Your task to perform on an android device: Open Youtube and go to "Your channel" Image 0: 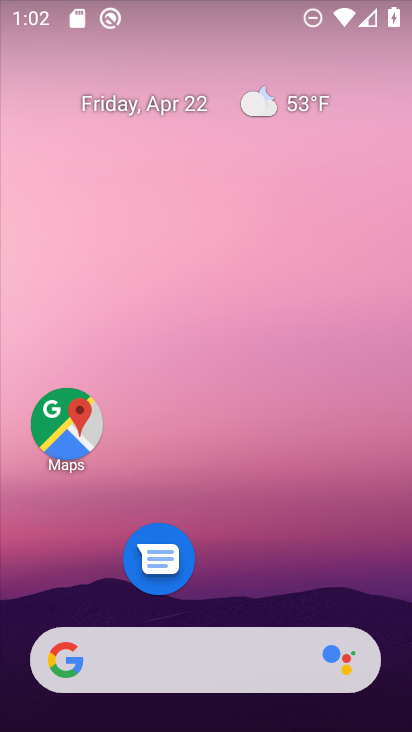
Step 0: drag from (247, 721) to (245, 240)
Your task to perform on an android device: Open Youtube and go to "Your channel" Image 1: 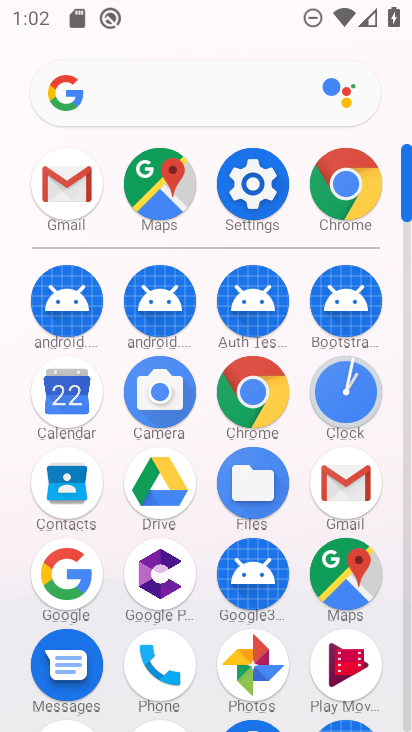
Step 1: drag from (199, 652) to (180, 282)
Your task to perform on an android device: Open Youtube and go to "Your channel" Image 2: 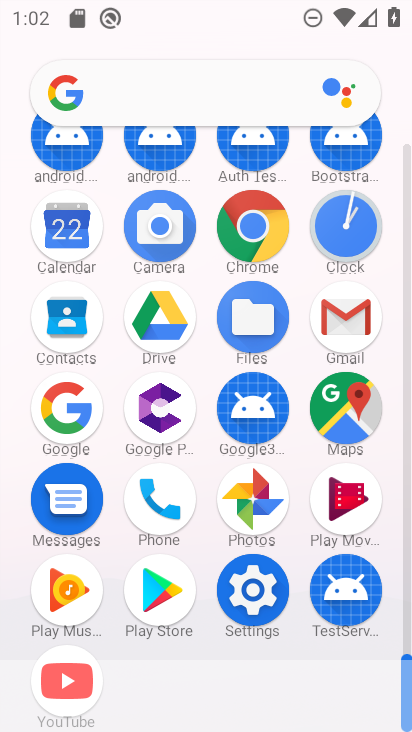
Step 2: click (60, 675)
Your task to perform on an android device: Open Youtube and go to "Your channel" Image 3: 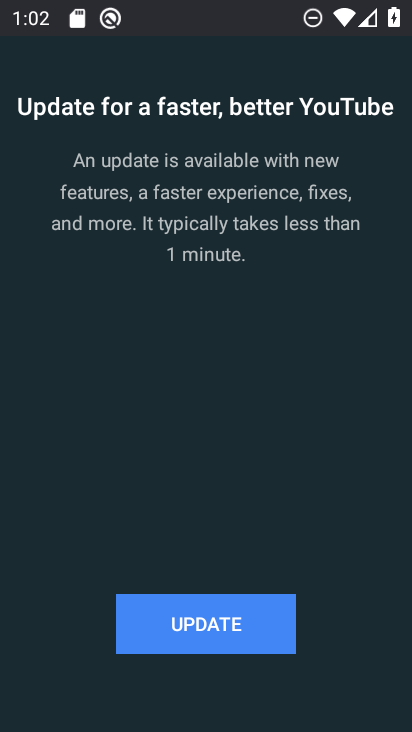
Step 3: click (215, 626)
Your task to perform on an android device: Open Youtube and go to "Your channel" Image 4: 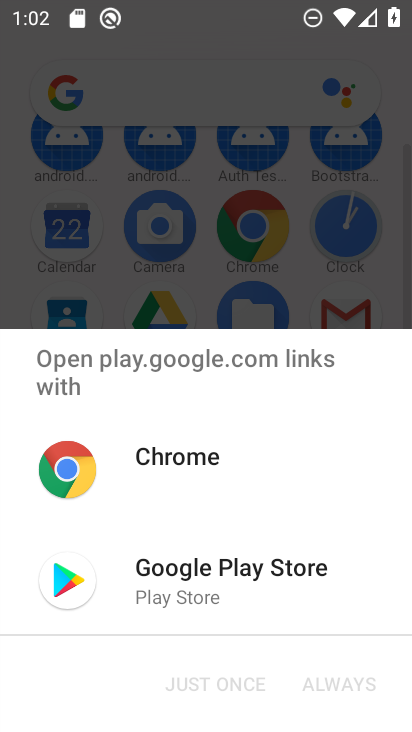
Step 4: click (180, 578)
Your task to perform on an android device: Open Youtube and go to "Your channel" Image 5: 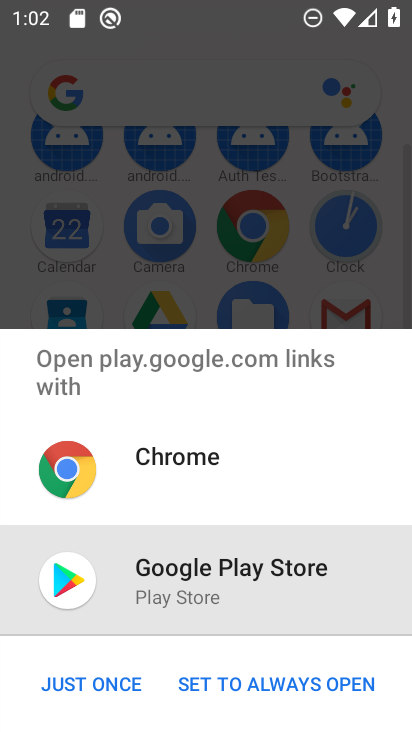
Step 5: click (77, 682)
Your task to perform on an android device: Open Youtube and go to "Your channel" Image 6: 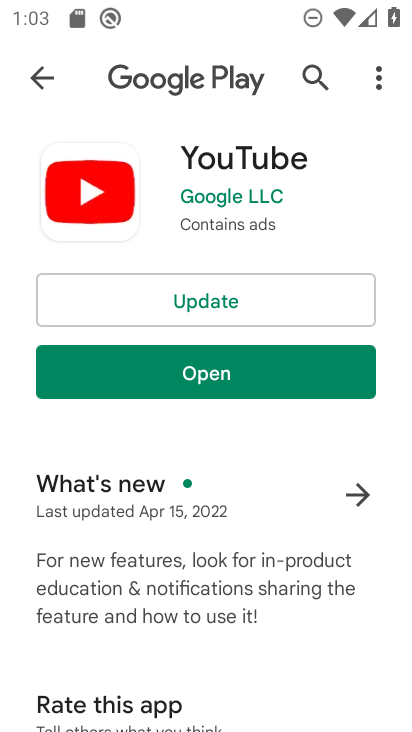
Step 6: click (208, 300)
Your task to perform on an android device: Open Youtube and go to "Your channel" Image 7: 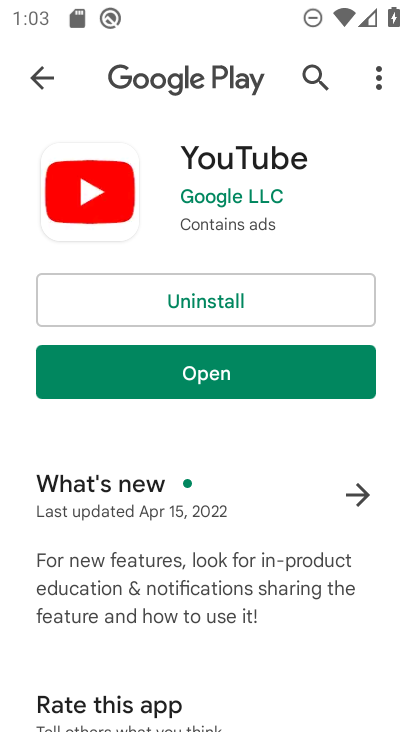
Step 7: click (200, 374)
Your task to perform on an android device: Open Youtube and go to "Your channel" Image 8: 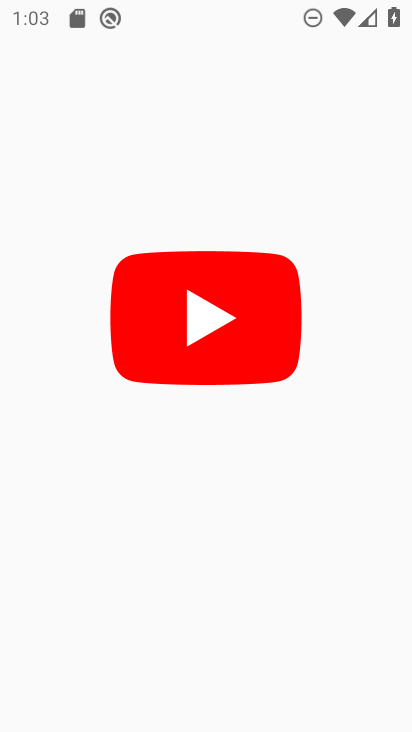
Step 8: click (199, 373)
Your task to perform on an android device: Open Youtube and go to "Your channel" Image 9: 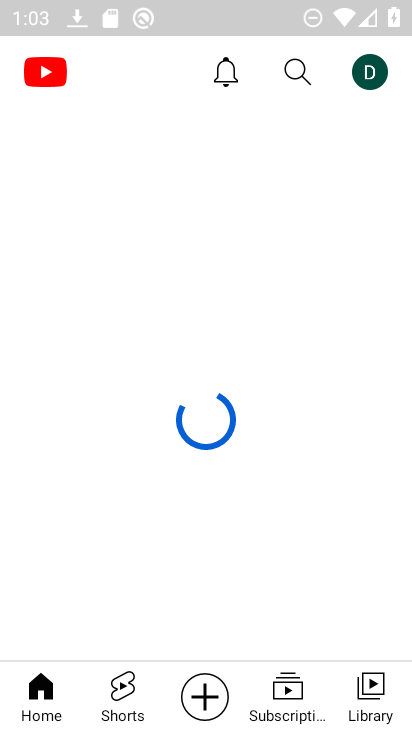
Step 9: click (370, 63)
Your task to perform on an android device: Open Youtube and go to "Your channel" Image 10: 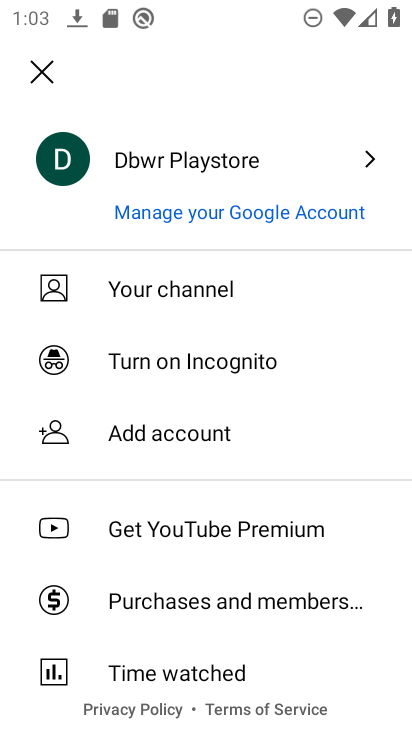
Step 10: click (179, 288)
Your task to perform on an android device: Open Youtube and go to "Your channel" Image 11: 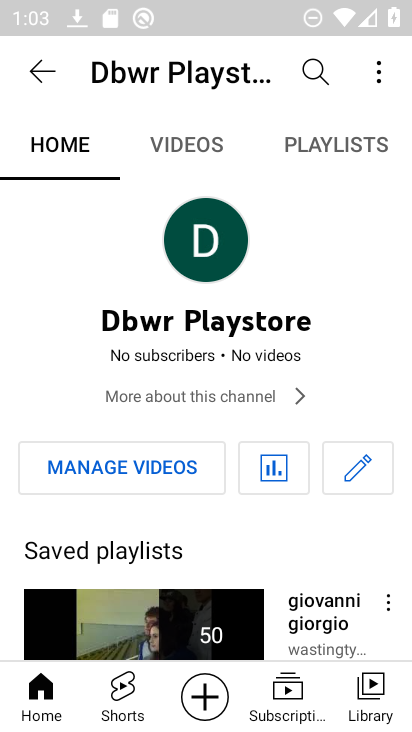
Step 11: task complete